Your task to perform on an android device: turn on sleep mode Image 0: 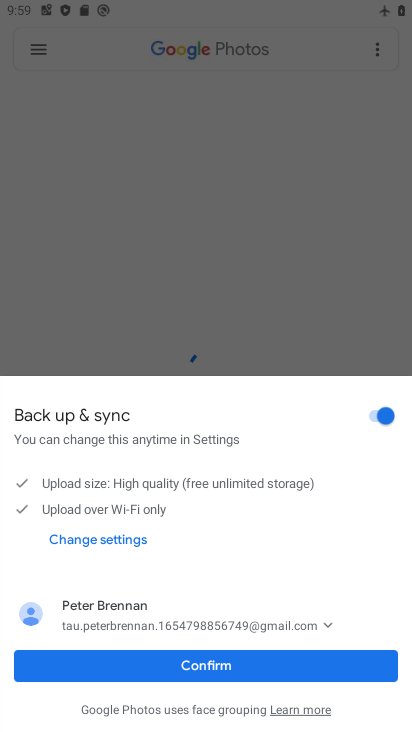
Step 0: press home button
Your task to perform on an android device: turn on sleep mode Image 1: 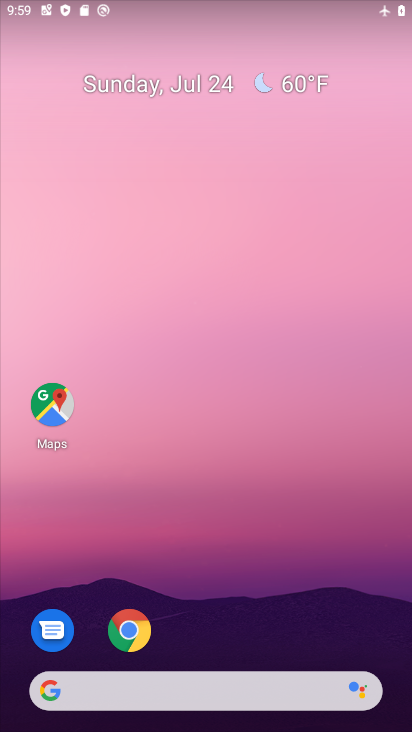
Step 1: drag from (211, 609) to (272, 9)
Your task to perform on an android device: turn on sleep mode Image 2: 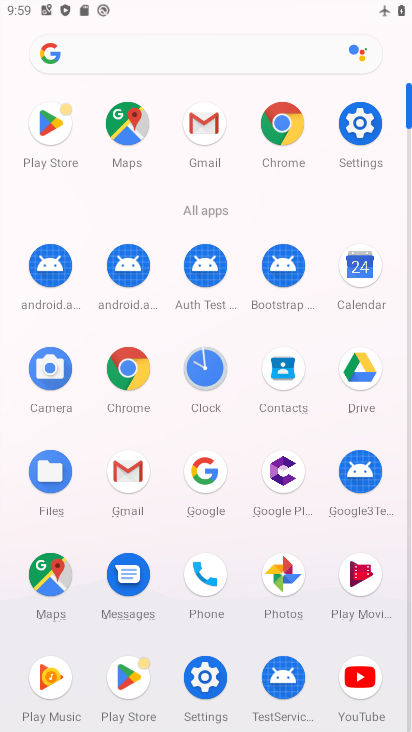
Step 2: click (364, 141)
Your task to perform on an android device: turn on sleep mode Image 3: 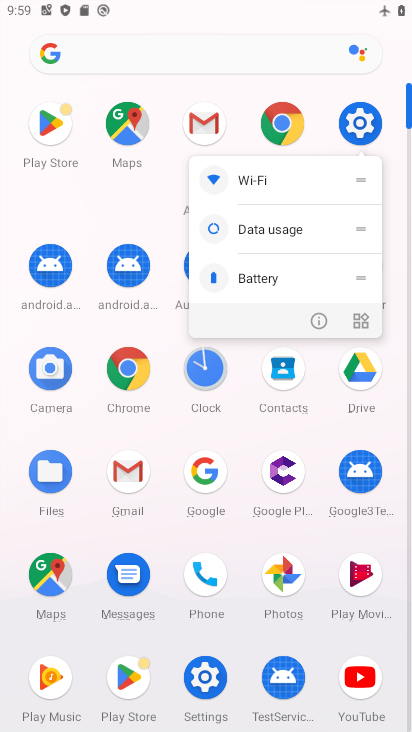
Step 3: click (369, 121)
Your task to perform on an android device: turn on sleep mode Image 4: 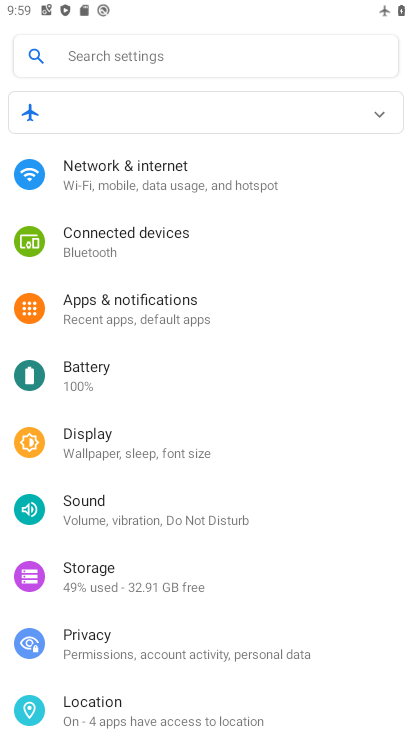
Step 4: click (213, 58)
Your task to perform on an android device: turn on sleep mode Image 5: 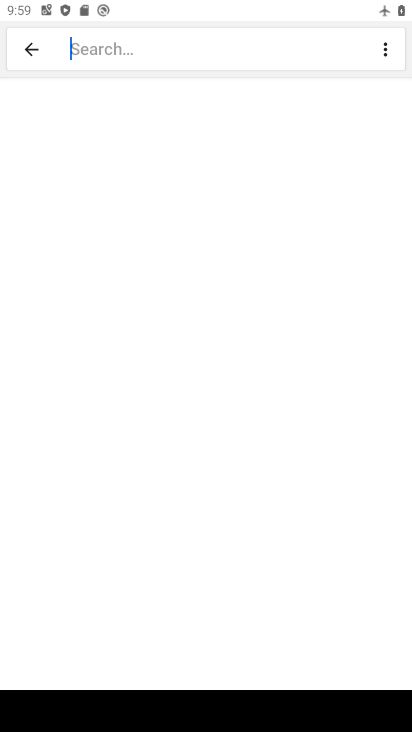
Step 5: type "sleep mode"
Your task to perform on an android device: turn on sleep mode Image 6: 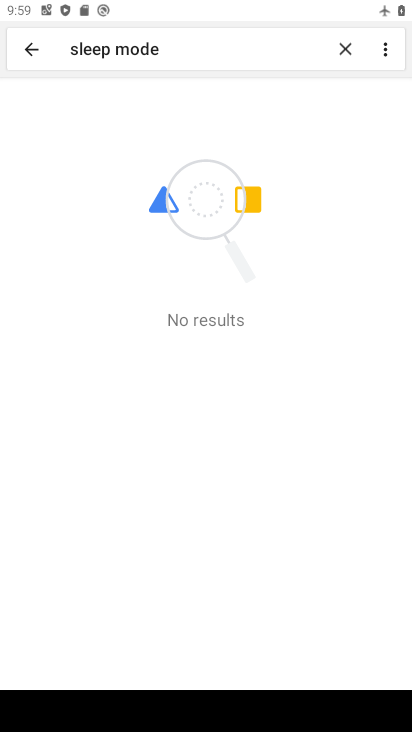
Step 6: task complete